Your task to perform on an android device: toggle sleep mode Image 0: 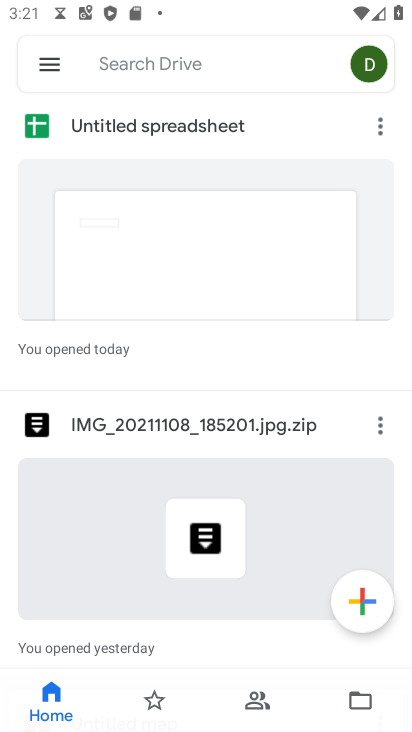
Step 0: press home button
Your task to perform on an android device: toggle sleep mode Image 1: 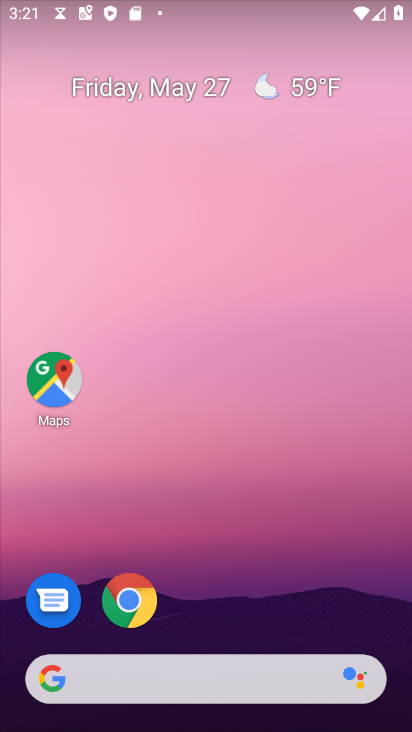
Step 1: drag from (244, 615) to (154, 241)
Your task to perform on an android device: toggle sleep mode Image 2: 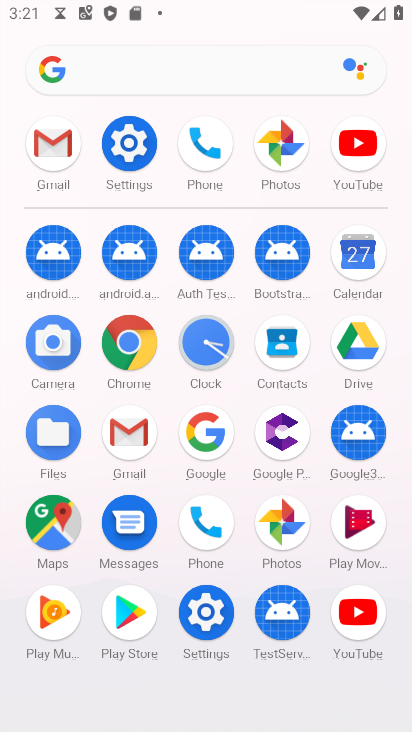
Step 2: click (127, 145)
Your task to perform on an android device: toggle sleep mode Image 3: 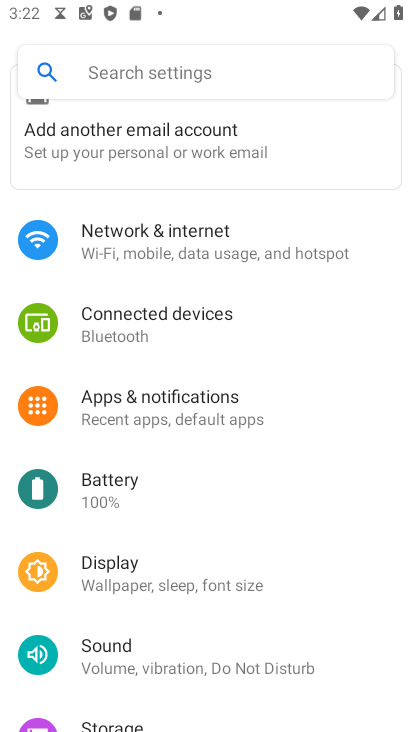
Step 3: click (184, 567)
Your task to perform on an android device: toggle sleep mode Image 4: 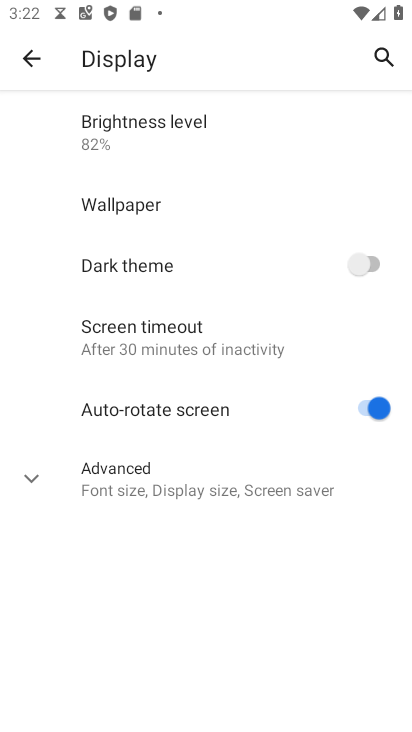
Step 4: click (175, 351)
Your task to perform on an android device: toggle sleep mode Image 5: 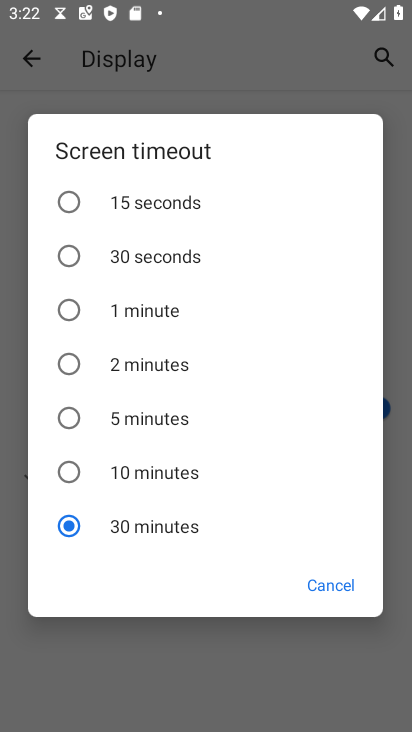
Step 5: click (175, 351)
Your task to perform on an android device: toggle sleep mode Image 6: 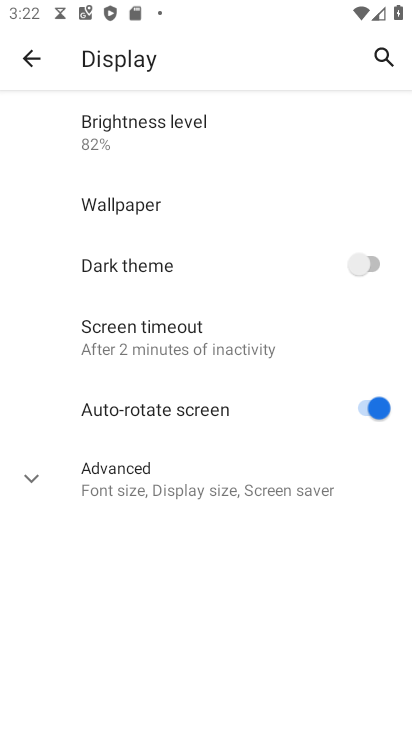
Step 6: task complete